Your task to perform on an android device: Open the phone app and click the voicemail tab. Image 0: 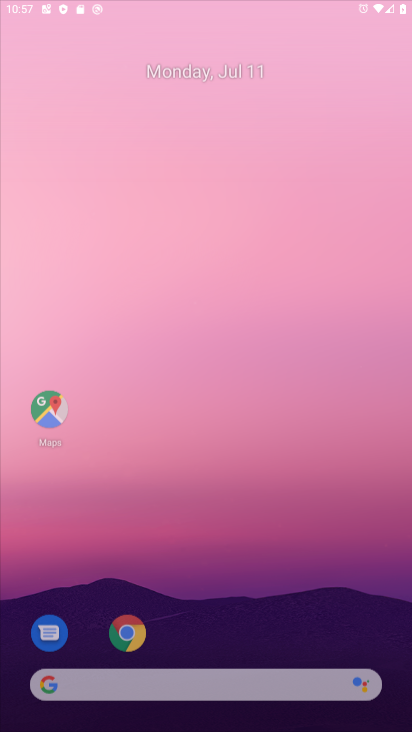
Step 0: press home button
Your task to perform on an android device: Open the phone app and click the voicemail tab. Image 1: 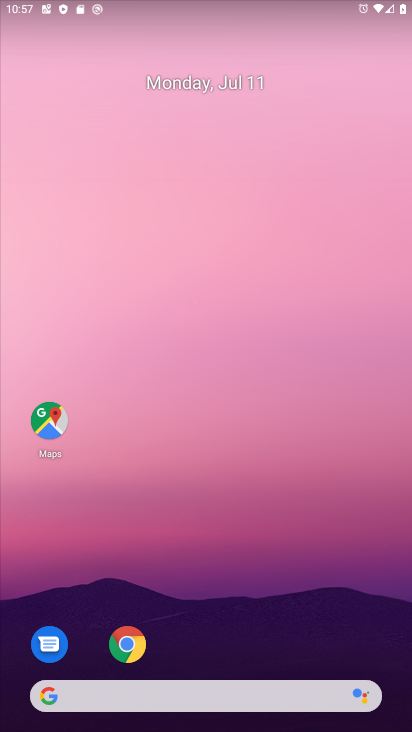
Step 1: drag from (203, 660) to (191, 21)
Your task to perform on an android device: Open the phone app and click the voicemail tab. Image 2: 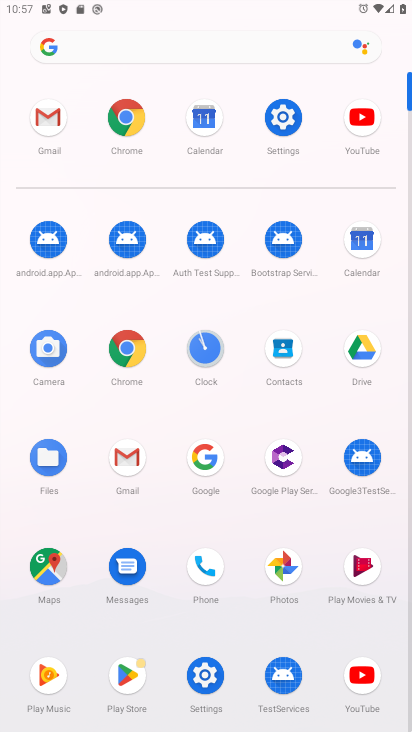
Step 2: click (209, 566)
Your task to perform on an android device: Open the phone app and click the voicemail tab. Image 3: 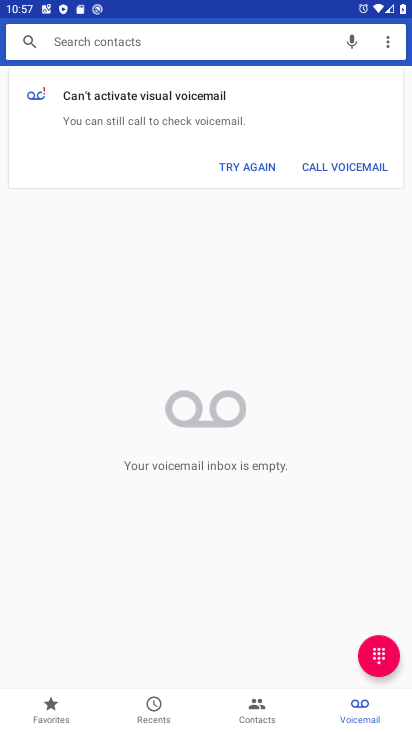
Step 3: task complete